Your task to perform on an android device: Is it going to rain today? Image 0: 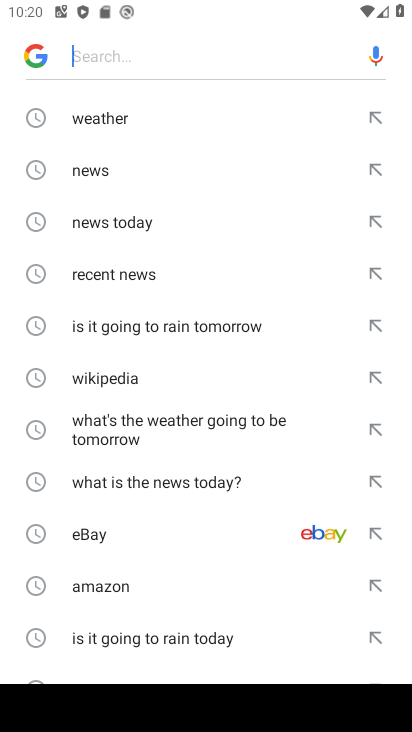
Step 0: press home button
Your task to perform on an android device: Is it going to rain today? Image 1: 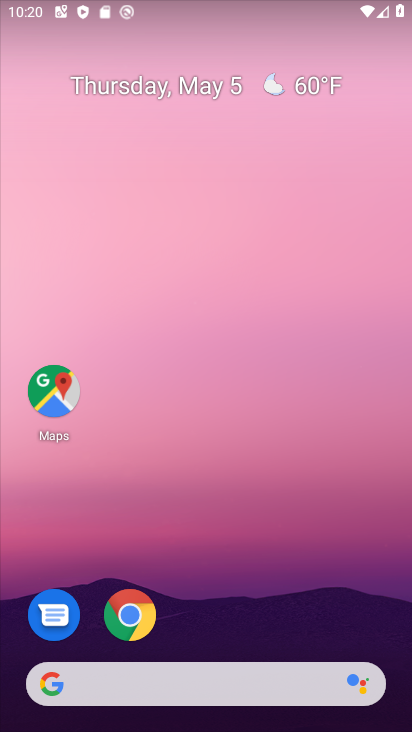
Step 1: drag from (212, 622) to (255, 141)
Your task to perform on an android device: Is it going to rain today? Image 2: 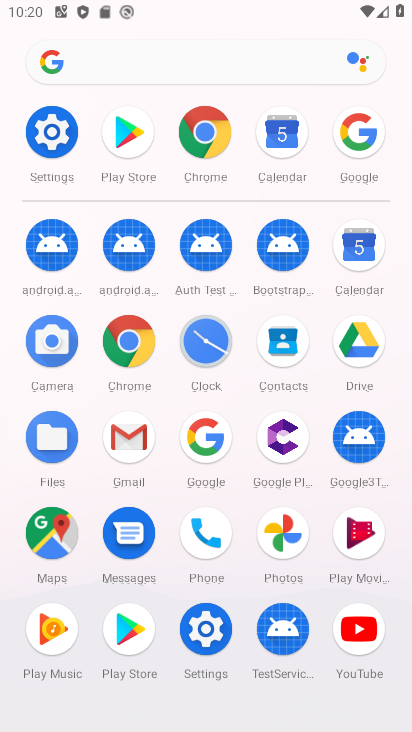
Step 2: click (209, 435)
Your task to perform on an android device: Is it going to rain today? Image 3: 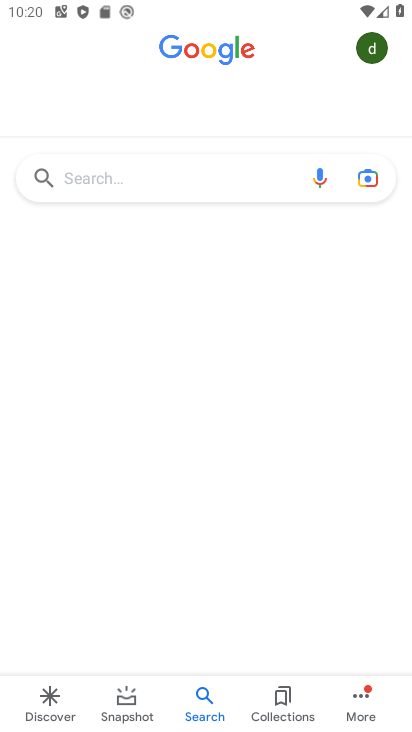
Step 3: click (166, 172)
Your task to perform on an android device: Is it going to rain today? Image 4: 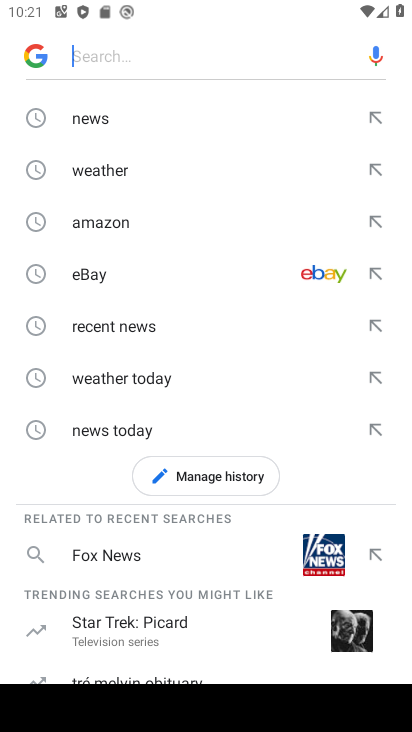
Step 4: type "is it going to rain today"
Your task to perform on an android device: Is it going to rain today? Image 5: 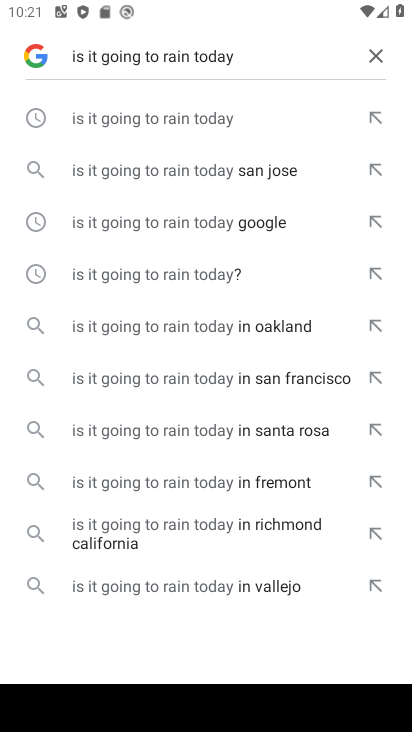
Step 5: click (244, 124)
Your task to perform on an android device: Is it going to rain today? Image 6: 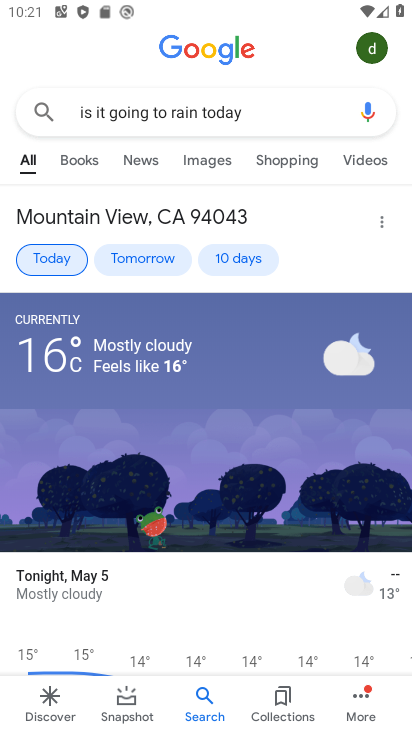
Step 6: task complete